Your task to perform on an android device: What's on my calendar today? Image 0: 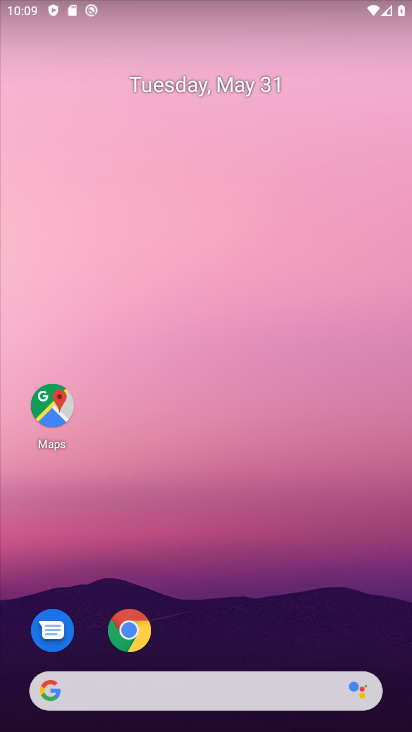
Step 0: press home button
Your task to perform on an android device: What's on my calendar today? Image 1: 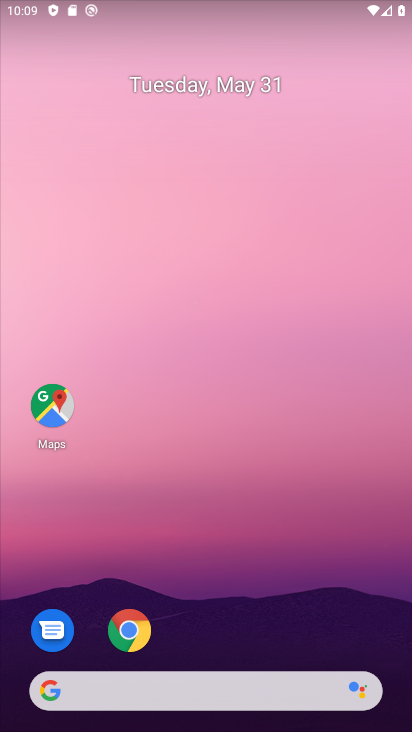
Step 1: drag from (244, 620) to (280, 195)
Your task to perform on an android device: What's on my calendar today? Image 2: 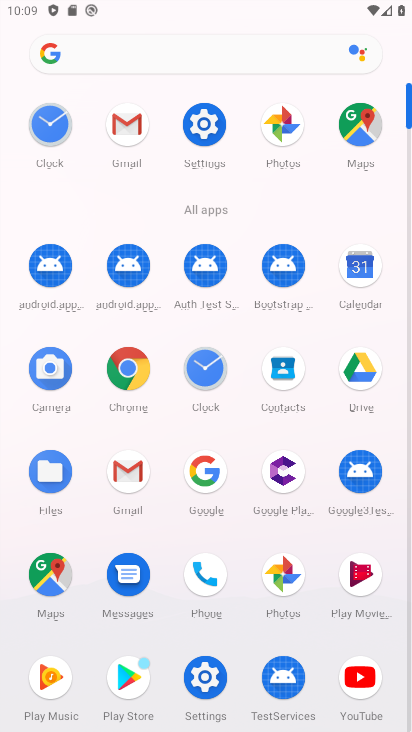
Step 2: click (365, 269)
Your task to perform on an android device: What's on my calendar today? Image 3: 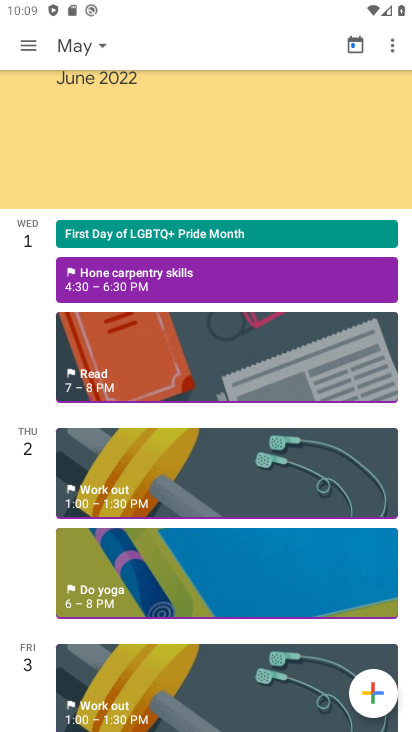
Step 3: task complete